Your task to perform on an android device: turn on bluetooth scan Image 0: 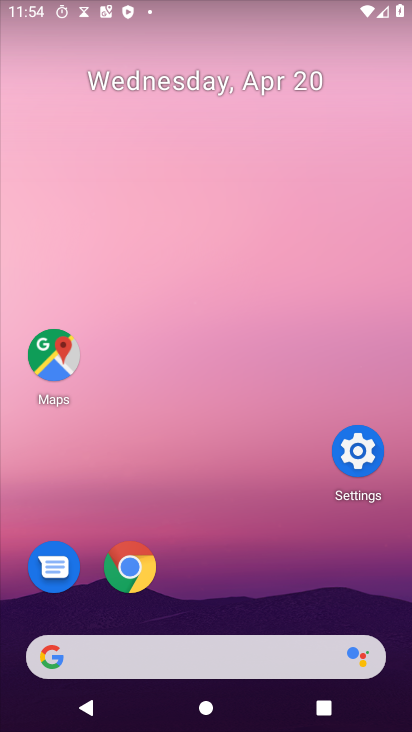
Step 0: click (366, 455)
Your task to perform on an android device: turn on bluetooth scan Image 1: 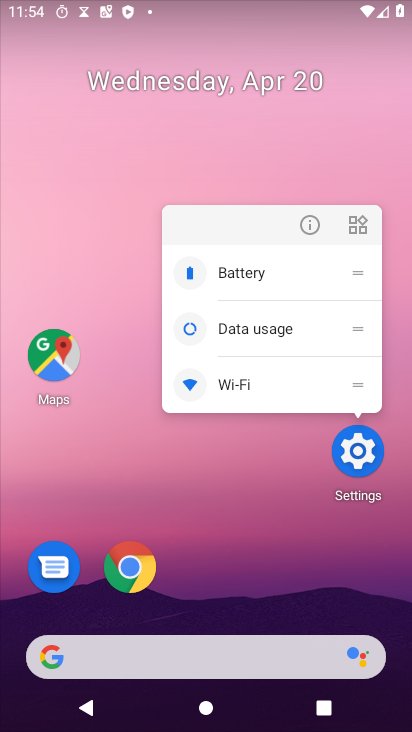
Step 1: click (311, 225)
Your task to perform on an android device: turn on bluetooth scan Image 2: 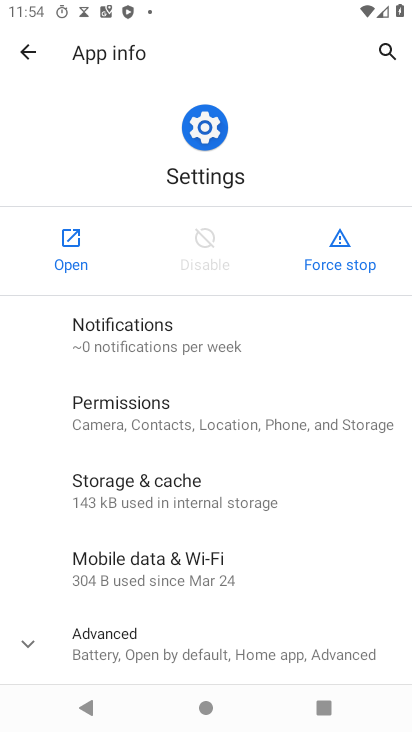
Step 2: click (66, 265)
Your task to perform on an android device: turn on bluetooth scan Image 3: 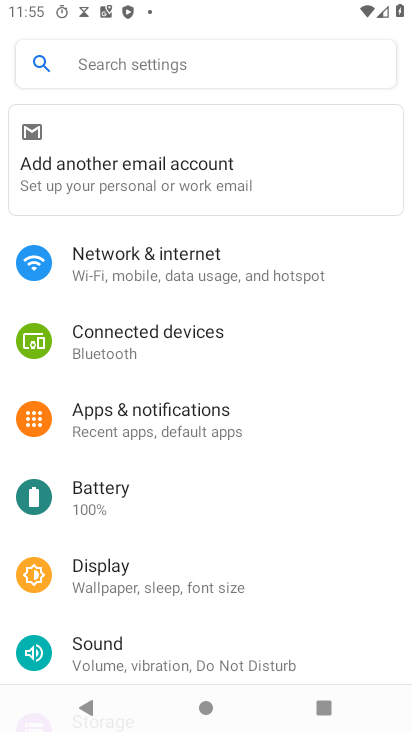
Step 3: drag from (178, 576) to (261, 143)
Your task to perform on an android device: turn on bluetooth scan Image 4: 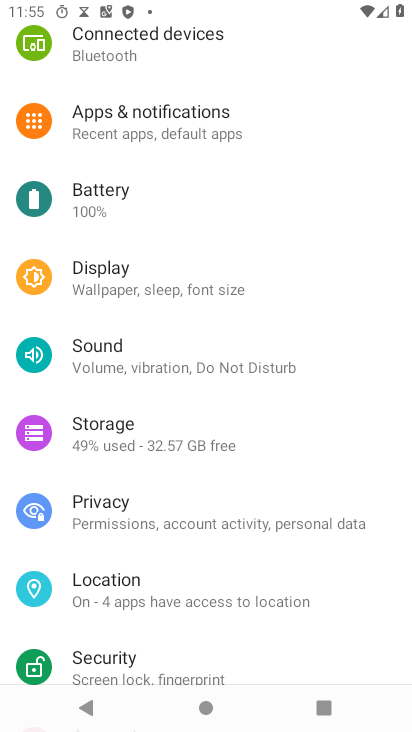
Step 4: click (137, 602)
Your task to perform on an android device: turn on bluetooth scan Image 5: 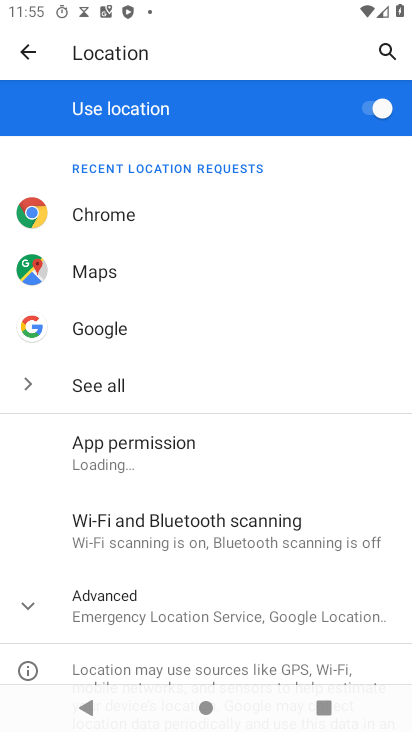
Step 5: drag from (176, 608) to (208, 386)
Your task to perform on an android device: turn on bluetooth scan Image 6: 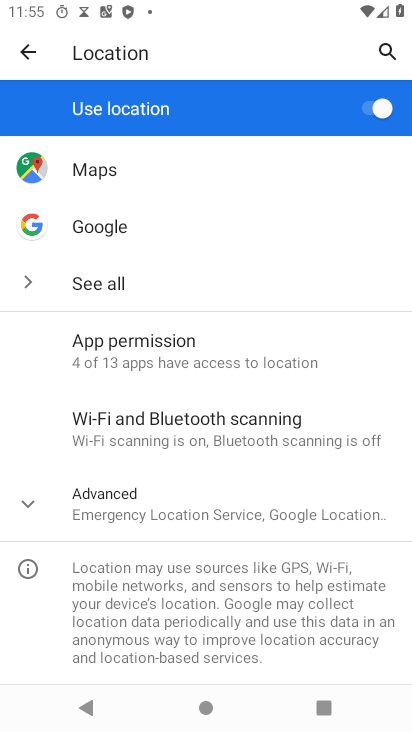
Step 6: click (217, 431)
Your task to perform on an android device: turn on bluetooth scan Image 7: 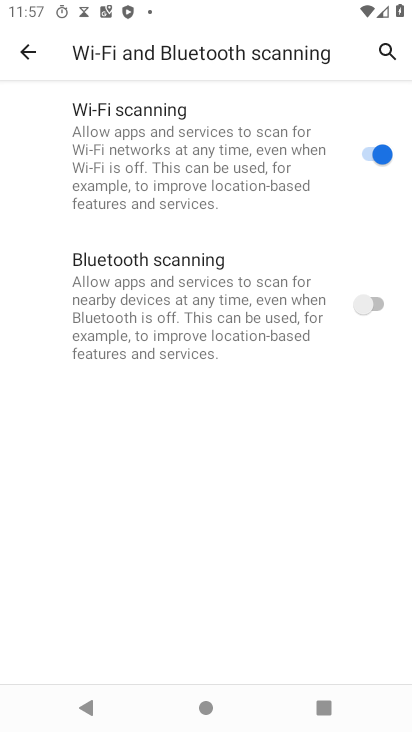
Step 7: click (353, 318)
Your task to perform on an android device: turn on bluetooth scan Image 8: 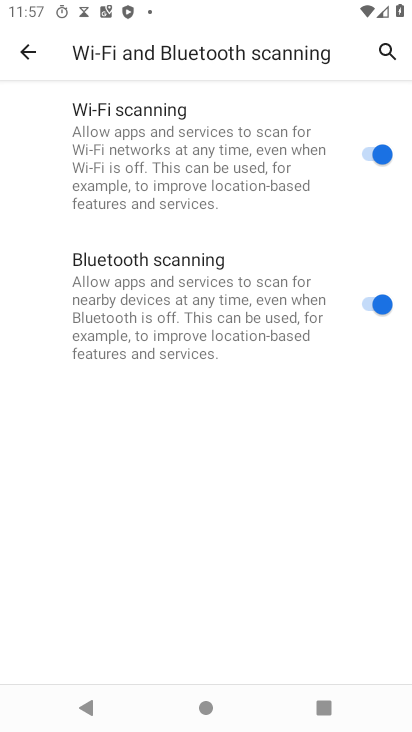
Step 8: task complete